Your task to perform on an android device: Open battery settings Image 0: 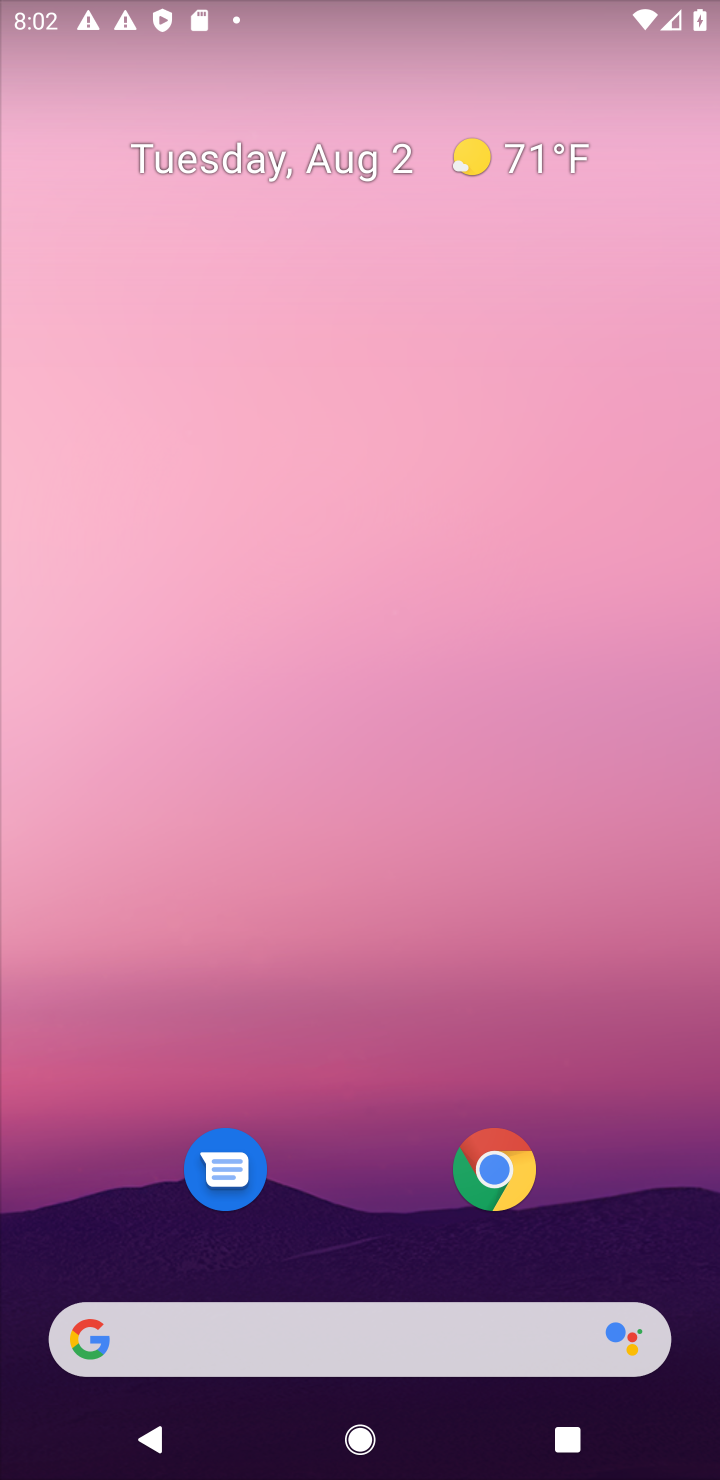
Step 0: drag from (376, 1049) to (446, 57)
Your task to perform on an android device: Open battery settings Image 1: 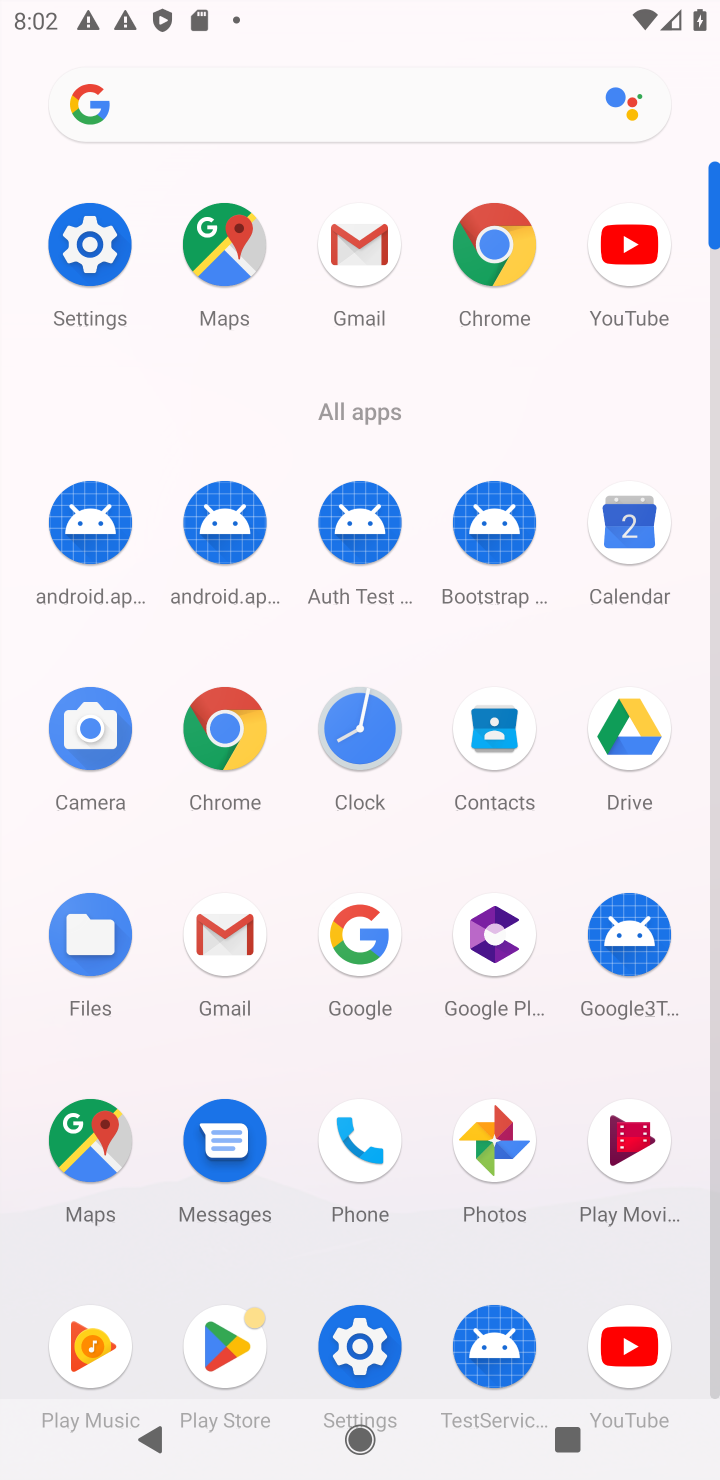
Step 1: click (83, 246)
Your task to perform on an android device: Open battery settings Image 2: 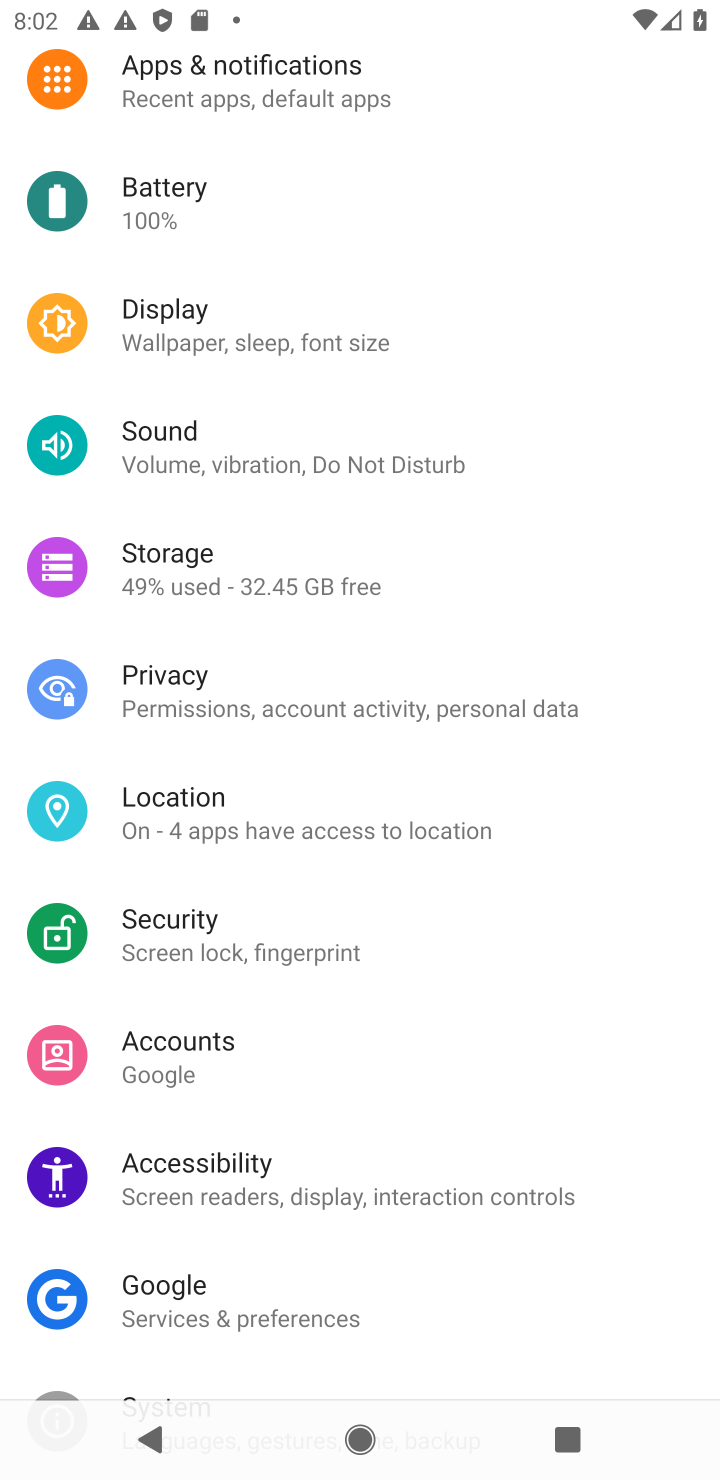
Step 2: click (140, 186)
Your task to perform on an android device: Open battery settings Image 3: 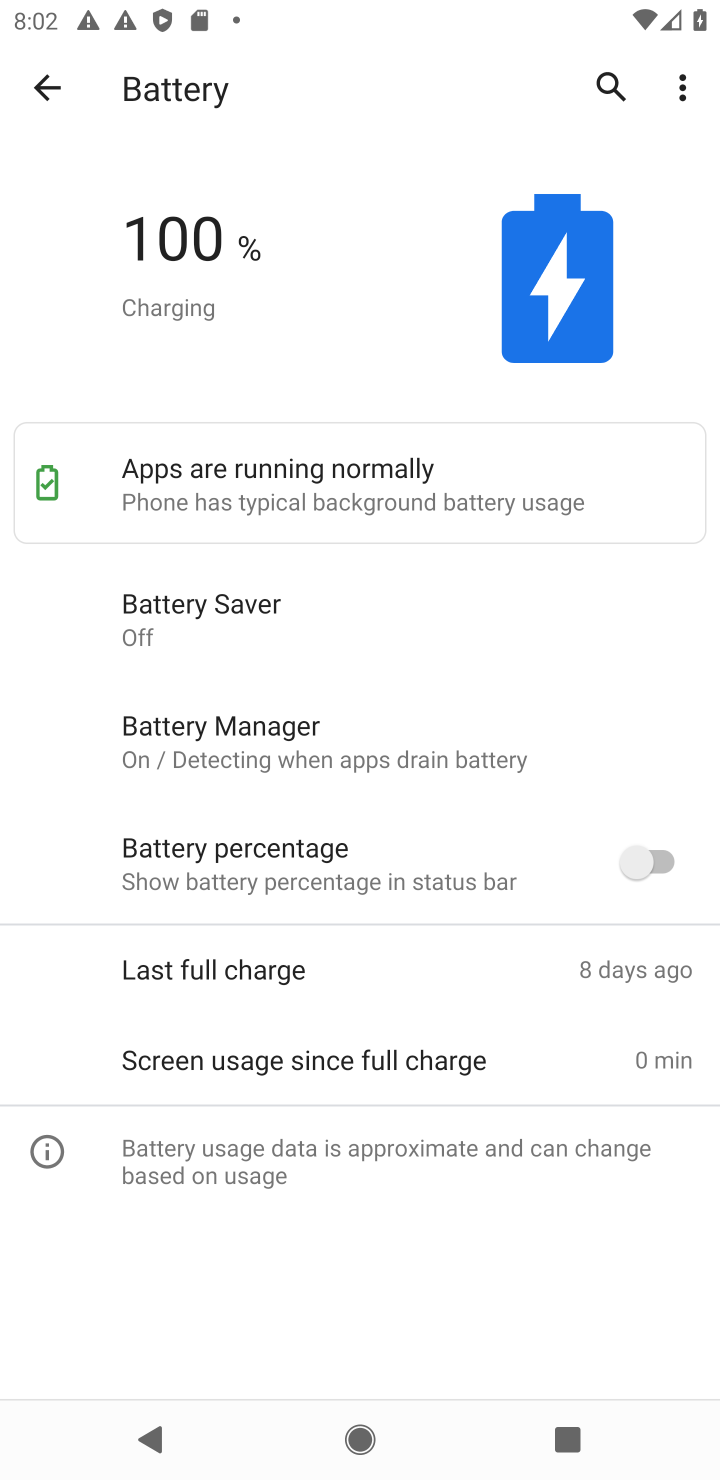
Step 3: task complete